Your task to perform on an android device: Open CNN.com Image 0: 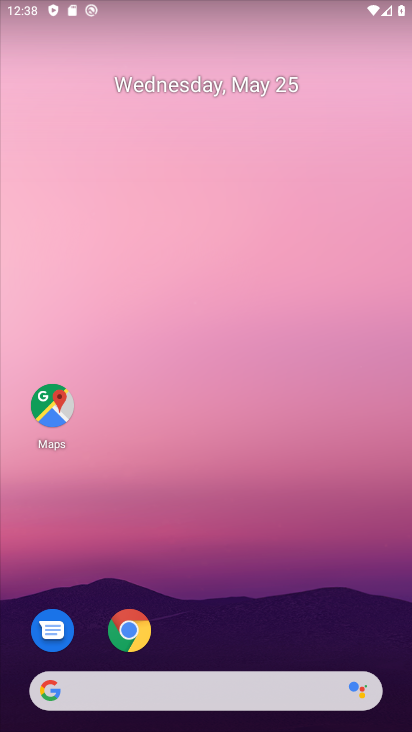
Step 0: drag from (356, 693) to (292, 195)
Your task to perform on an android device: Open CNN.com Image 1: 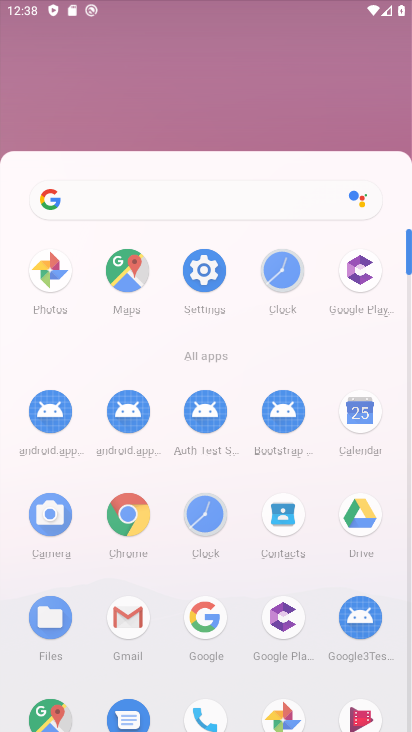
Step 1: drag from (319, 681) to (175, 9)
Your task to perform on an android device: Open CNN.com Image 2: 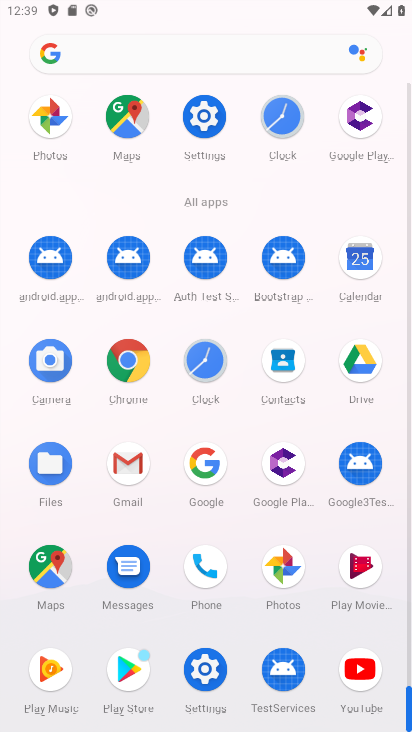
Step 2: click (129, 360)
Your task to perform on an android device: Open CNN.com Image 3: 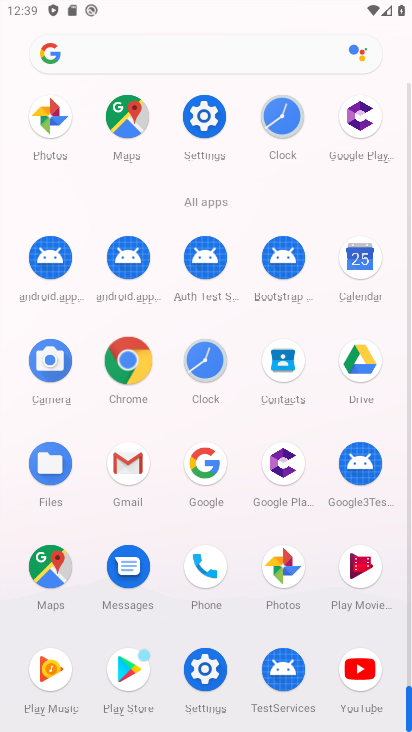
Step 3: click (132, 359)
Your task to perform on an android device: Open CNN.com Image 4: 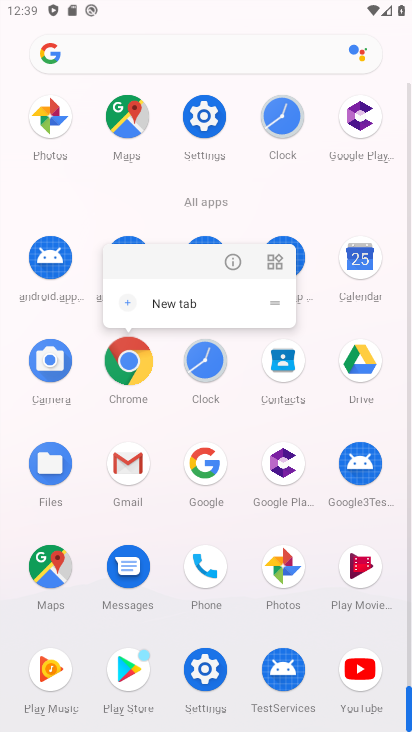
Step 4: click (129, 360)
Your task to perform on an android device: Open CNN.com Image 5: 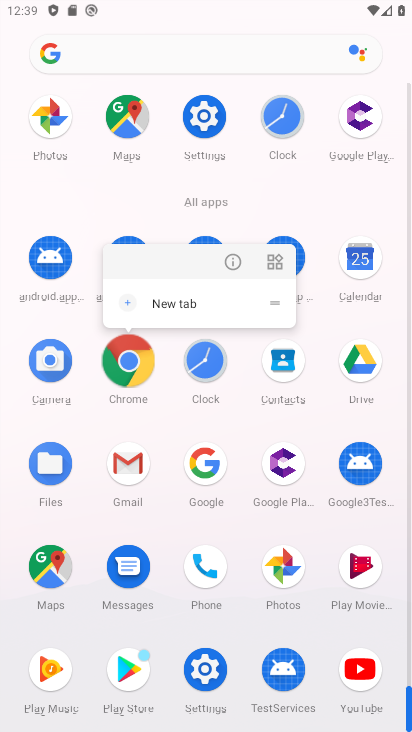
Step 5: click (129, 360)
Your task to perform on an android device: Open CNN.com Image 6: 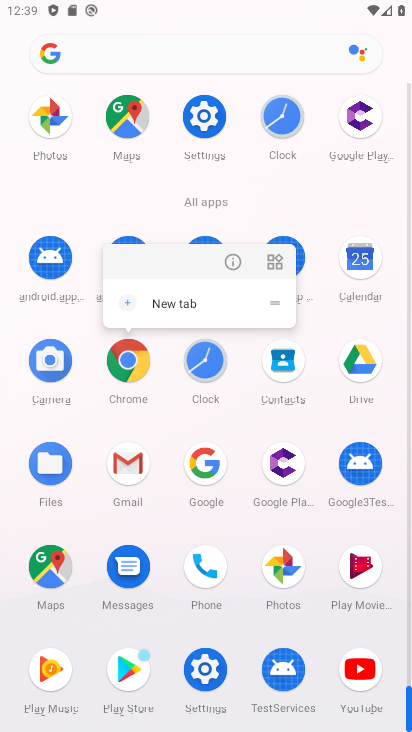
Step 6: click (129, 360)
Your task to perform on an android device: Open CNN.com Image 7: 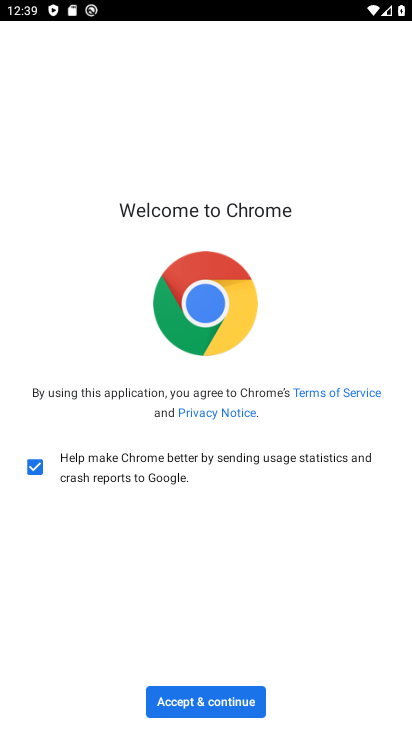
Step 7: click (213, 697)
Your task to perform on an android device: Open CNN.com Image 8: 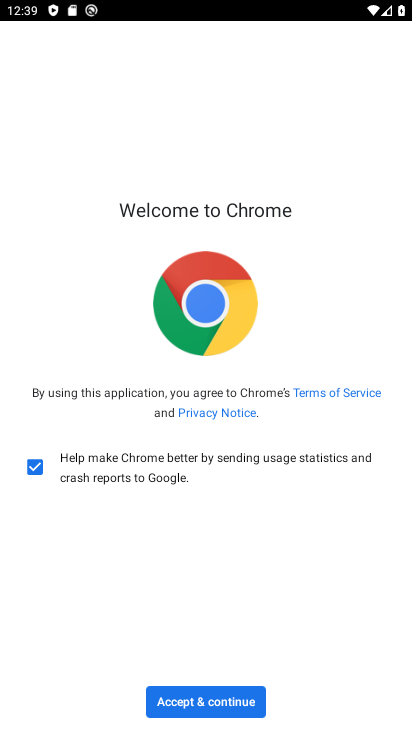
Step 8: click (213, 697)
Your task to perform on an android device: Open CNN.com Image 9: 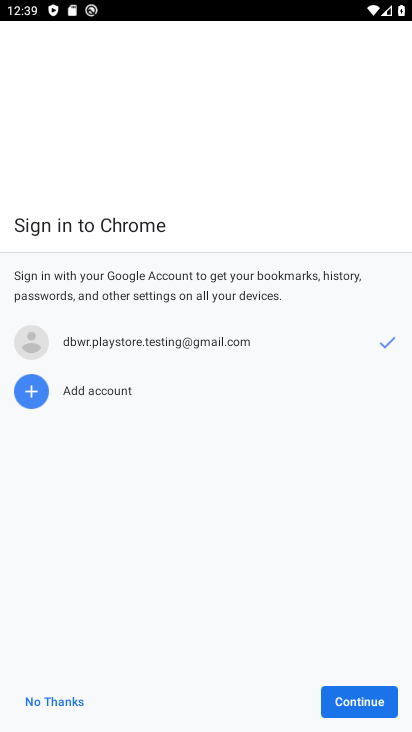
Step 9: click (351, 702)
Your task to perform on an android device: Open CNN.com Image 10: 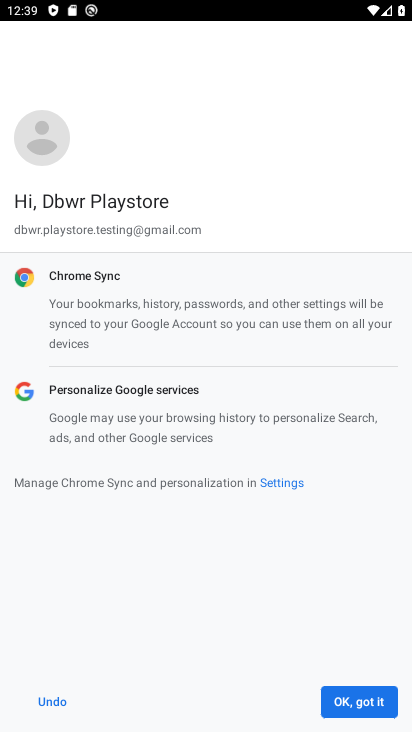
Step 10: click (354, 701)
Your task to perform on an android device: Open CNN.com Image 11: 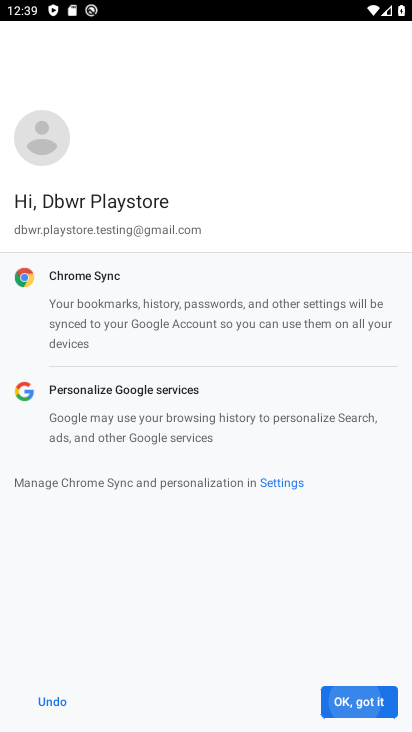
Step 11: click (354, 701)
Your task to perform on an android device: Open CNN.com Image 12: 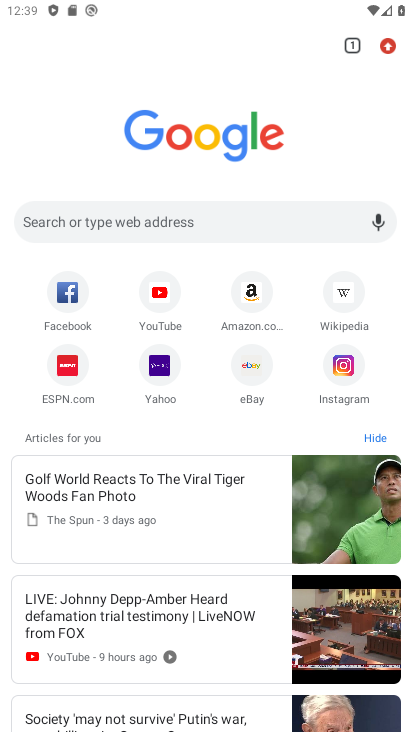
Step 12: click (385, 45)
Your task to perform on an android device: Open CNN.com Image 13: 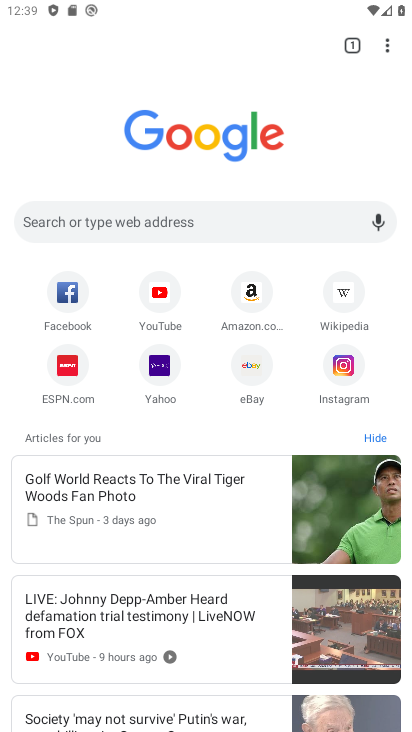
Step 13: click (110, 102)
Your task to perform on an android device: Open CNN.com Image 14: 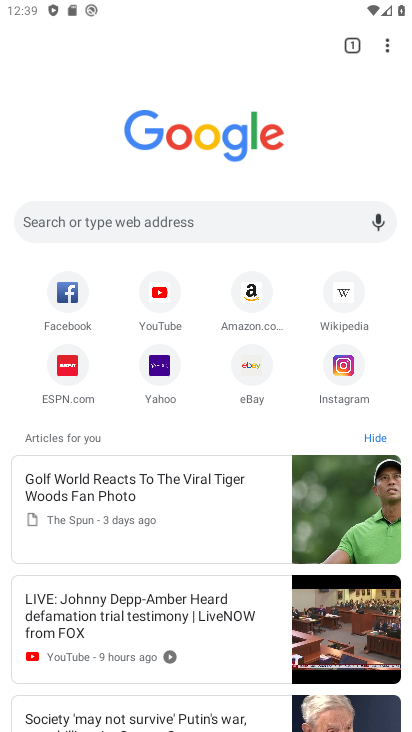
Step 14: click (381, 45)
Your task to perform on an android device: Open CNN.com Image 15: 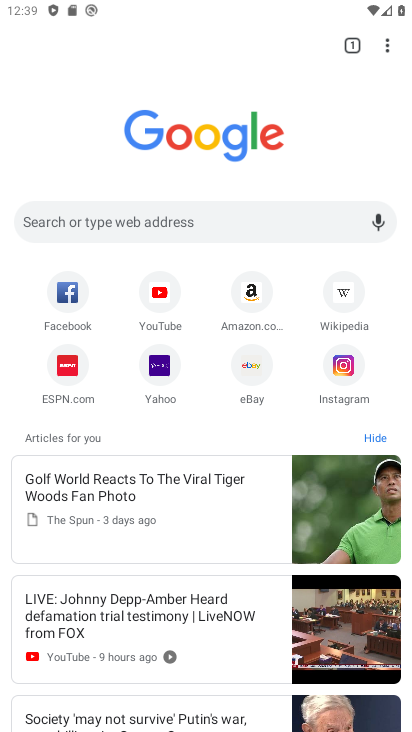
Step 15: click (389, 52)
Your task to perform on an android device: Open CNN.com Image 16: 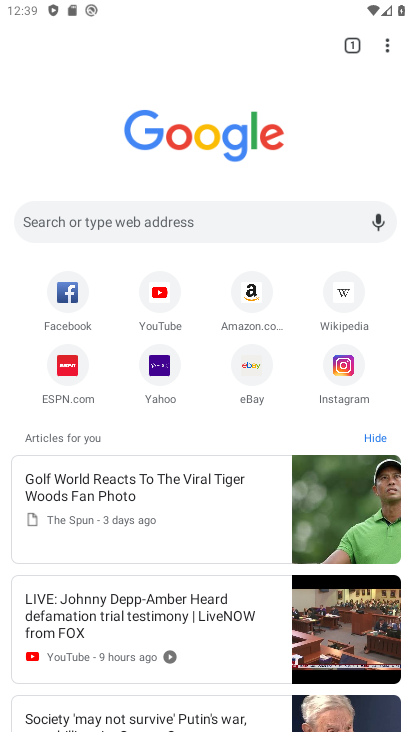
Step 16: click (54, 215)
Your task to perform on an android device: Open CNN.com Image 17: 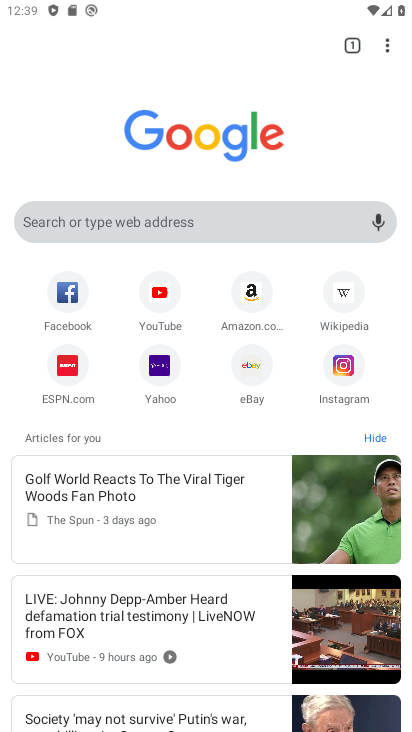
Step 17: drag from (52, 214) to (81, 195)
Your task to perform on an android device: Open CNN.com Image 18: 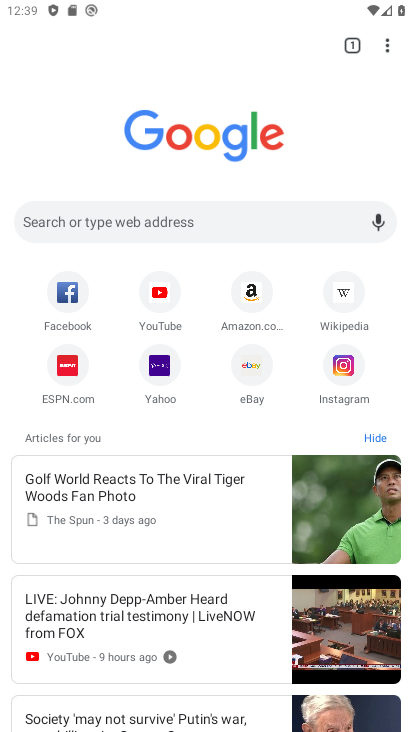
Step 18: click (38, 217)
Your task to perform on an android device: Open CNN.com Image 19: 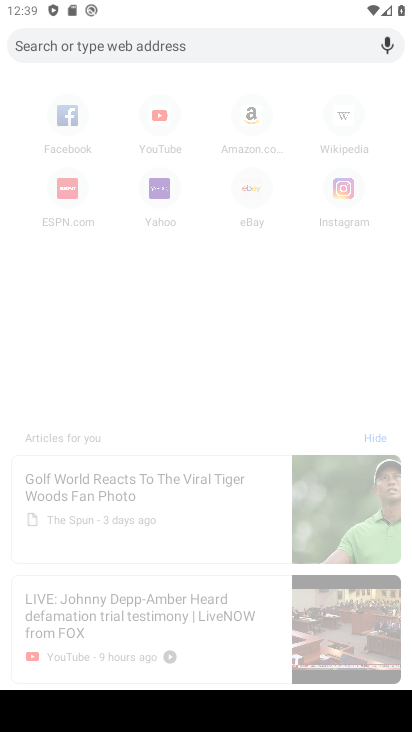
Step 19: type "cnn"
Your task to perform on an android device: Open CNN.com Image 20: 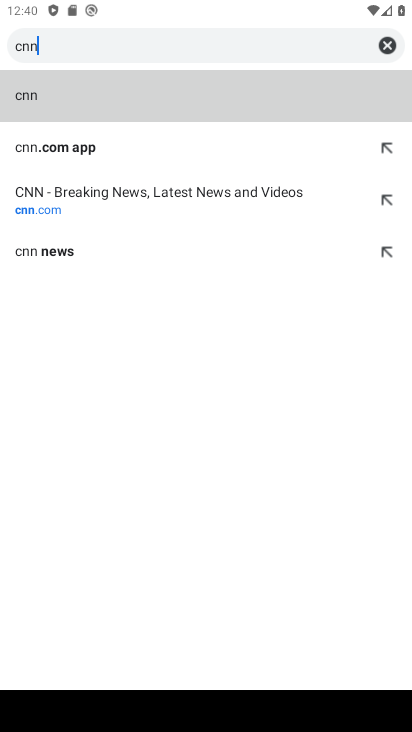
Step 20: click (33, 206)
Your task to perform on an android device: Open CNN.com Image 21: 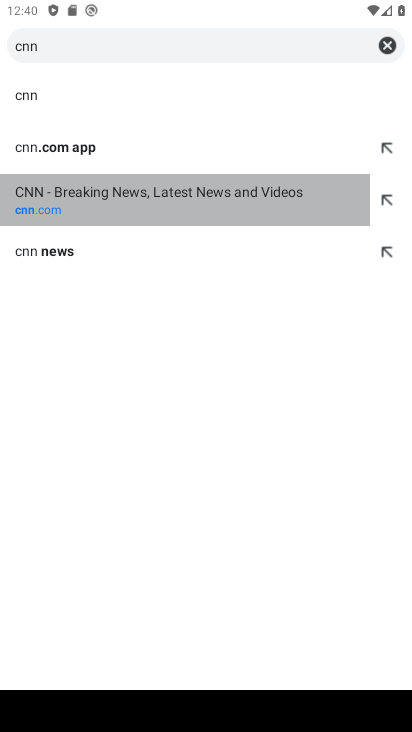
Step 21: click (39, 199)
Your task to perform on an android device: Open CNN.com Image 22: 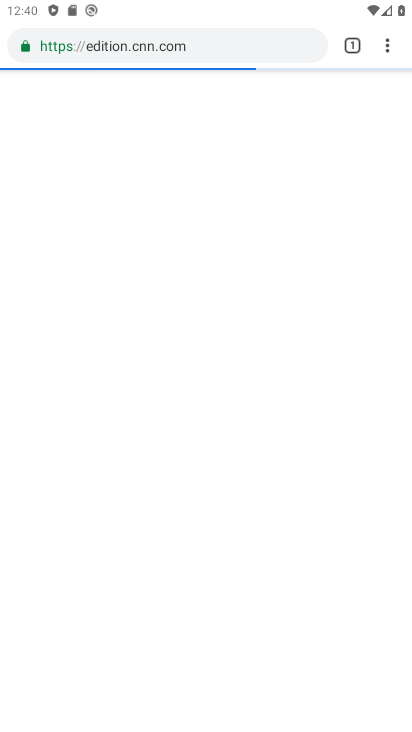
Step 22: task complete